Your task to perform on an android device: Go to ESPN.com Image 0: 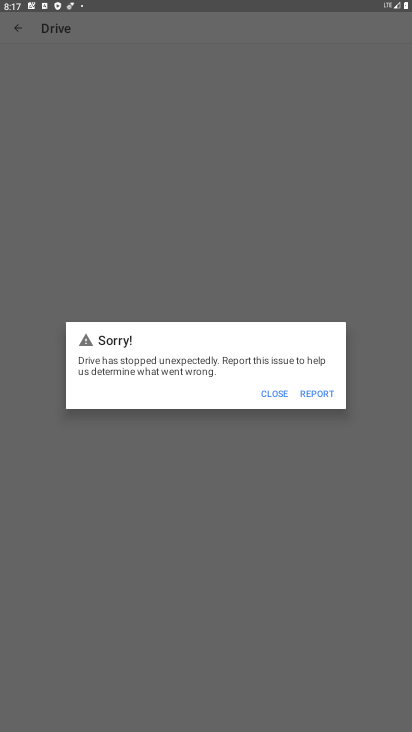
Step 0: press home button
Your task to perform on an android device: Go to ESPN.com Image 1: 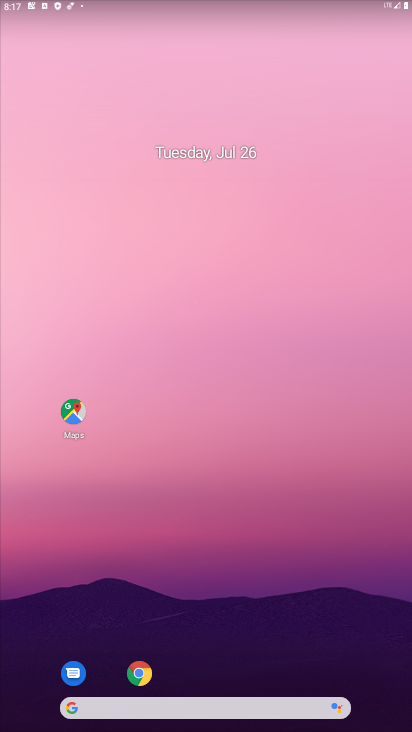
Step 1: click (146, 662)
Your task to perform on an android device: Go to ESPN.com Image 2: 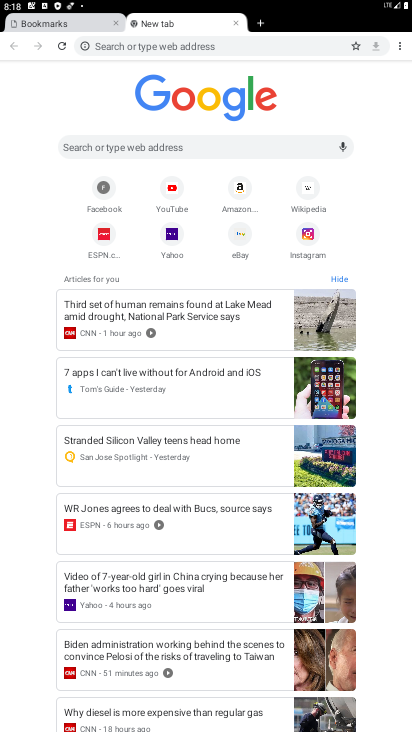
Step 2: click (96, 240)
Your task to perform on an android device: Go to ESPN.com Image 3: 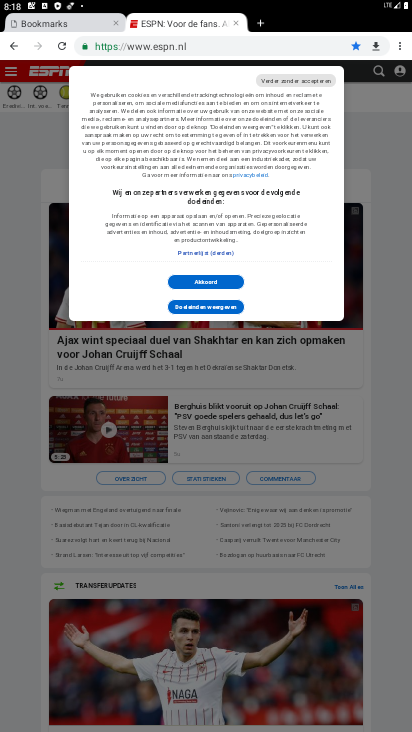
Step 3: task complete